Your task to perform on an android device: What is the news today? Image 0: 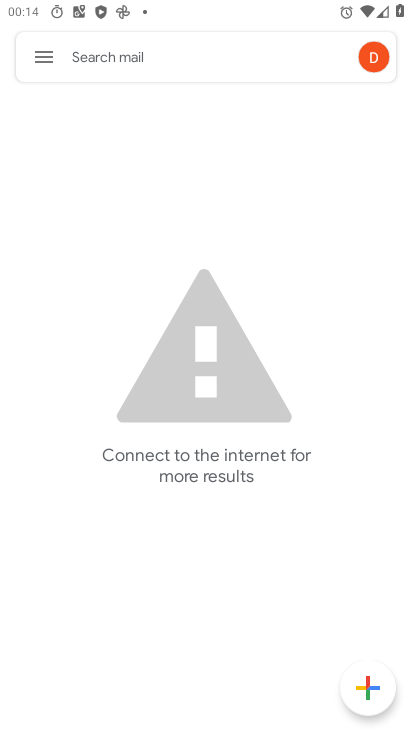
Step 0: press home button
Your task to perform on an android device: What is the news today? Image 1: 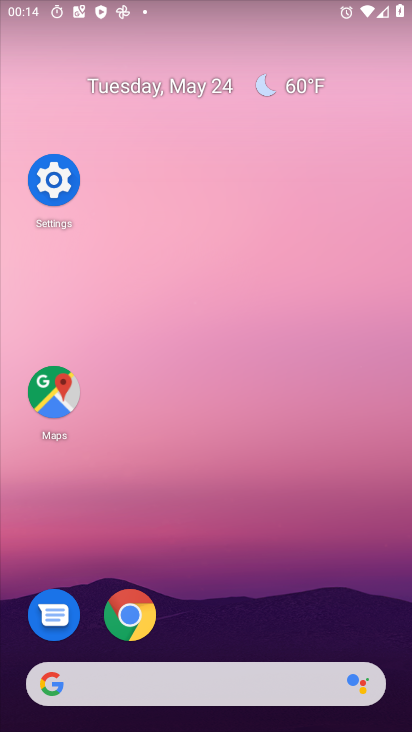
Step 1: drag from (255, 600) to (285, 55)
Your task to perform on an android device: What is the news today? Image 2: 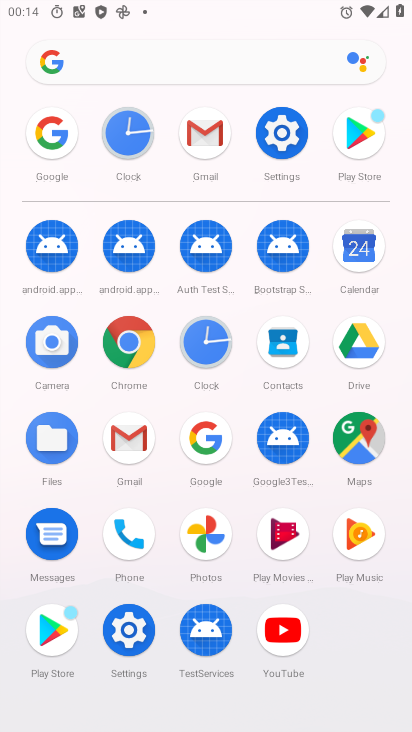
Step 2: click (206, 432)
Your task to perform on an android device: What is the news today? Image 3: 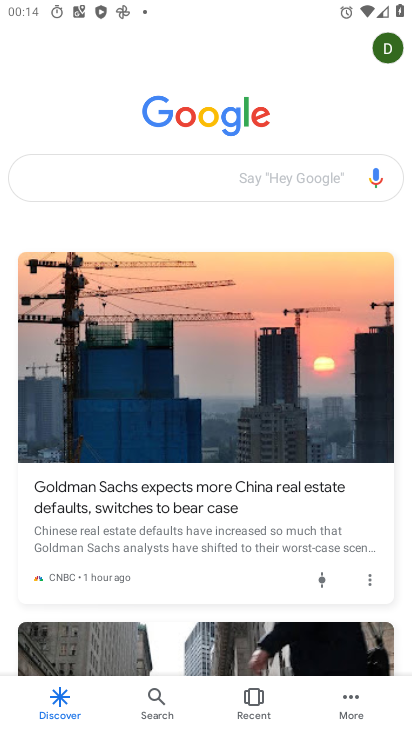
Step 3: click (193, 168)
Your task to perform on an android device: What is the news today? Image 4: 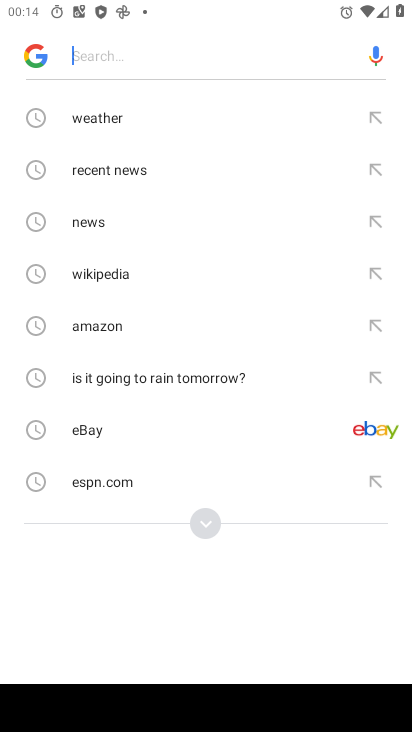
Step 4: click (122, 226)
Your task to perform on an android device: What is the news today? Image 5: 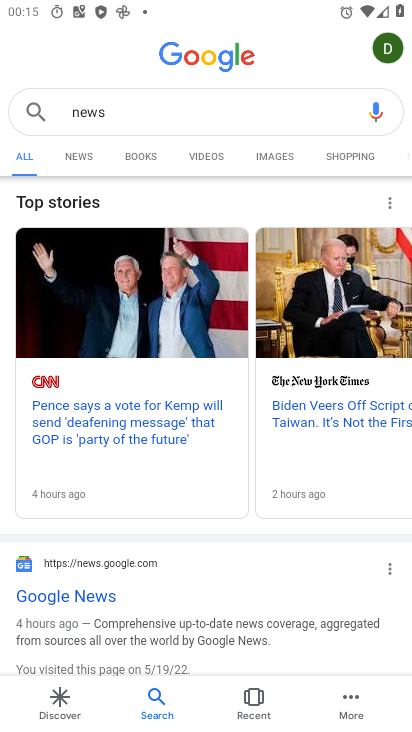
Step 5: task complete